Your task to perform on an android device: see sites visited before in the chrome app Image 0: 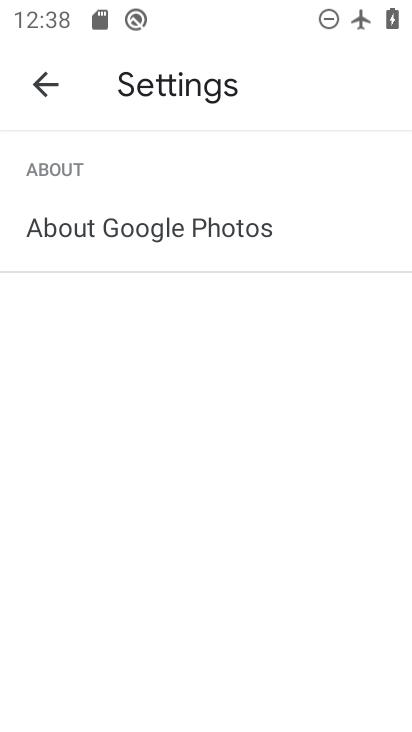
Step 0: press home button
Your task to perform on an android device: see sites visited before in the chrome app Image 1: 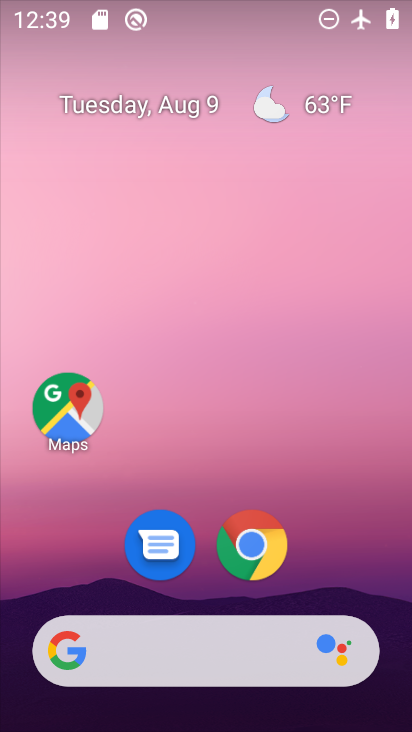
Step 1: click (253, 542)
Your task to perform on an android device: see sites visited before in the chrome app Image 2: 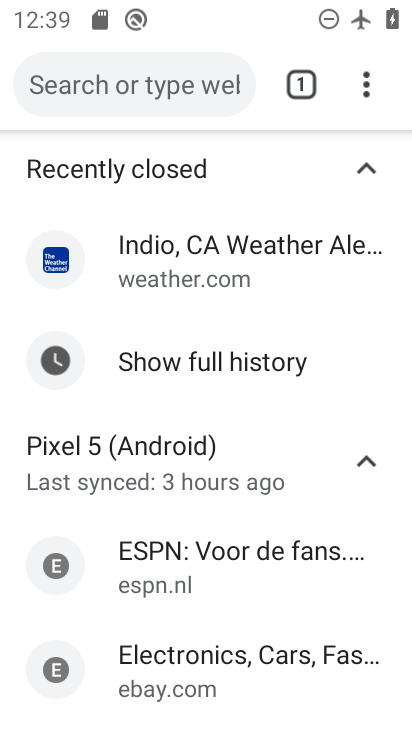
Step 2: click (364, 82)
Your task to perform on an android device: see sites visited before in the chrome app Image 3: 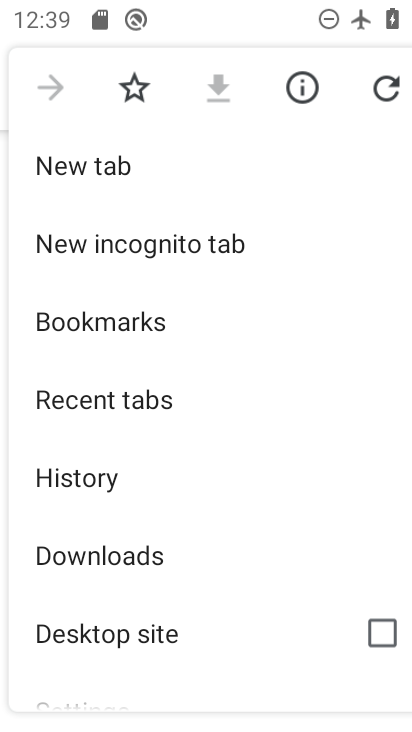
Step 3: drag from (95, 578) to (188, 387)
Your task to perform on an android device: see sites visited before in the chrome app Image 4: 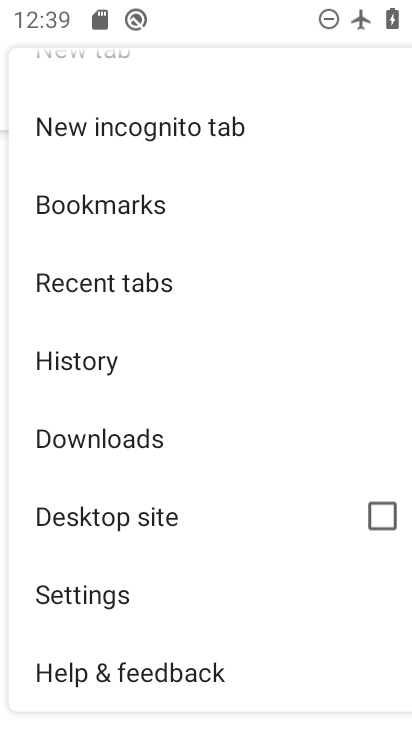
Step 4: click (91, 359)
Your task to perform on an android device: see sites visited before in the chrome app Image 5: 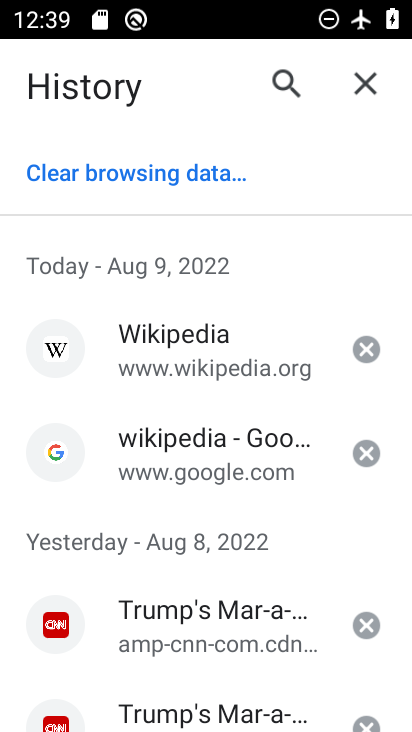
Step 5: task complete